Your task to perform on an android device: change alarm snooze length Image 0: 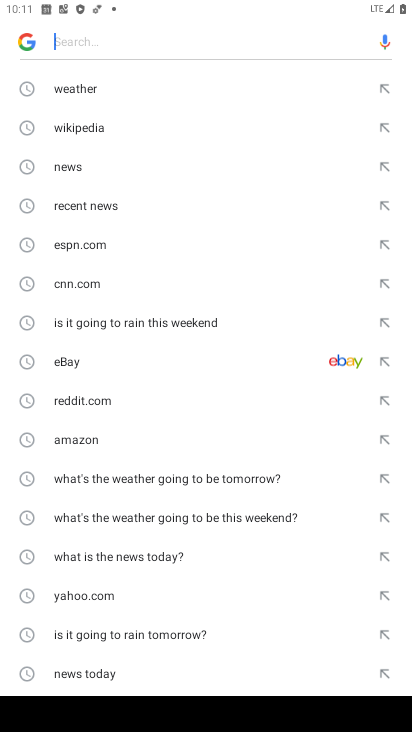
Step 0: task complete